Your task to perform on an android device: stop showing notifications on the lock screen Image 0: 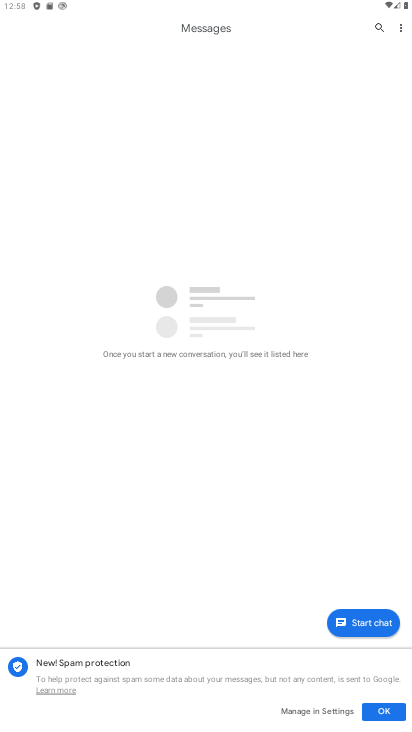
Step 0: press home button
Your task to perform on an android device: stop showing notifications on the lock screen Image 1: 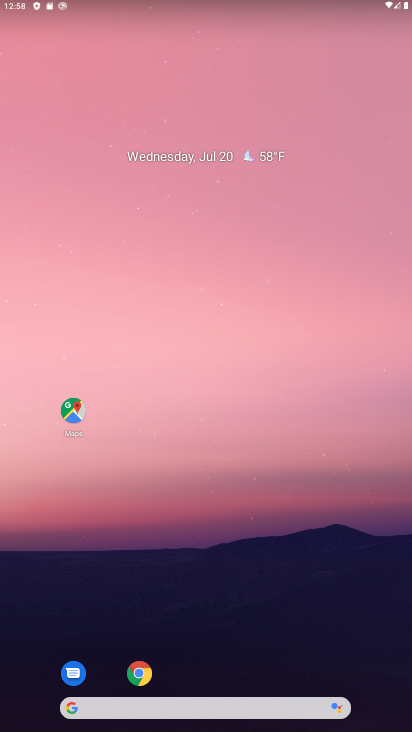
Step 1: drag from (366, 497) to (362, 0)
Your task to perform on an android device: stop showing notifications on the lock screen Image 2: 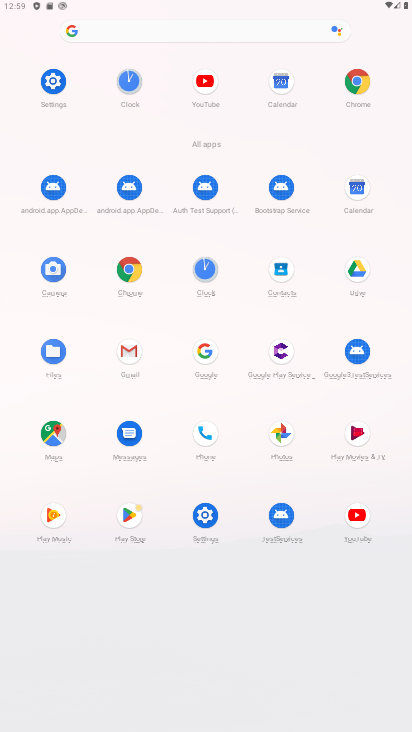
Step 2: click (200, 512)
Your task to perform on an android device: stop showing notifications on the lock screen Image 3: 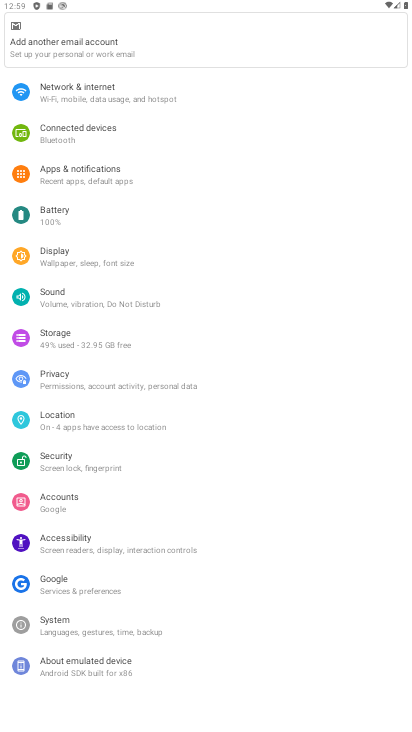
Step 3: click (100, 176)
Your task to perform on an android device: stop showing notifications on the lock screen Image 4: 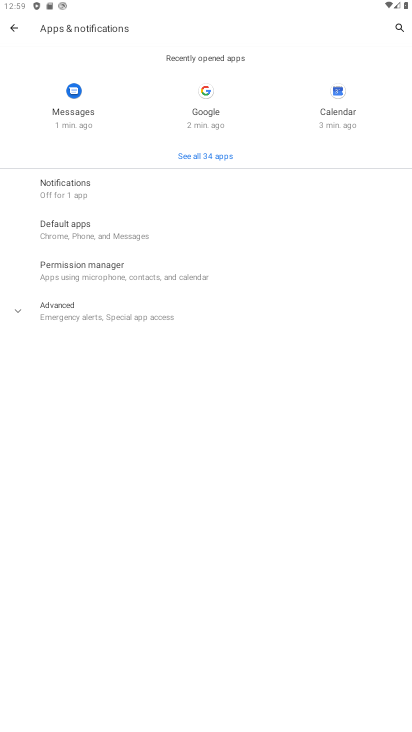
Step 4: click (142, 184)
Your task to perform on an android device: stop showing notifications on the lock screen Image 5: 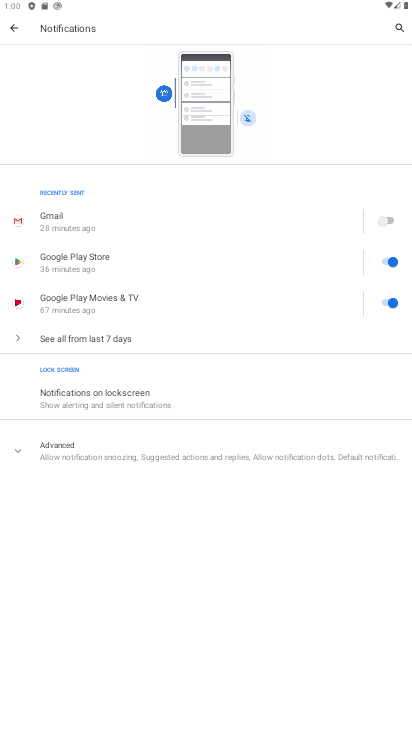
Step 5: click (120, 444)
Your task to perform on an android device: stop showing notifications on the lock screen Image 6: 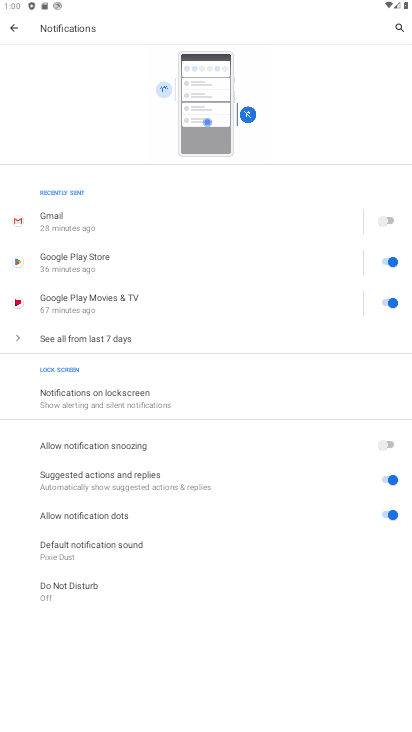
Step 6: click (235, 392)
Your task to perform on an android device: stop showing notifications on the lock screen Image 7: 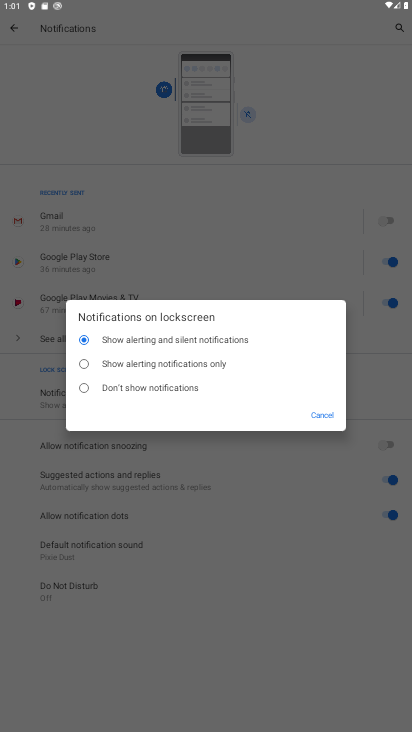
Step 7: click (134, 385)
Your task to perform on an android device: stop showing notifications on the lock screen Image 8: 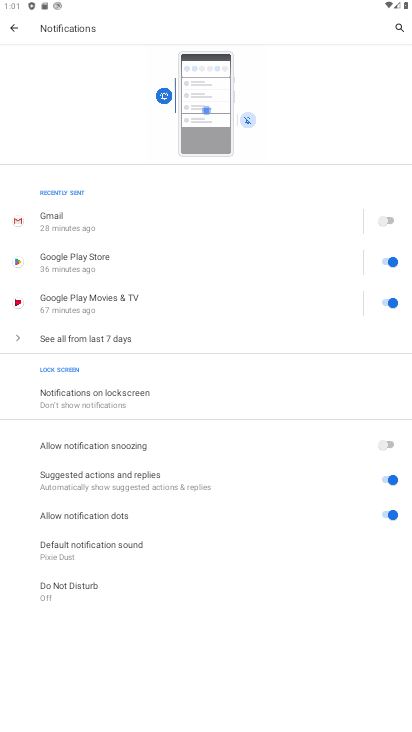
Step 8: task complete